Your task to perform on an android device: toggle show notifications on the lock screen Image 0: 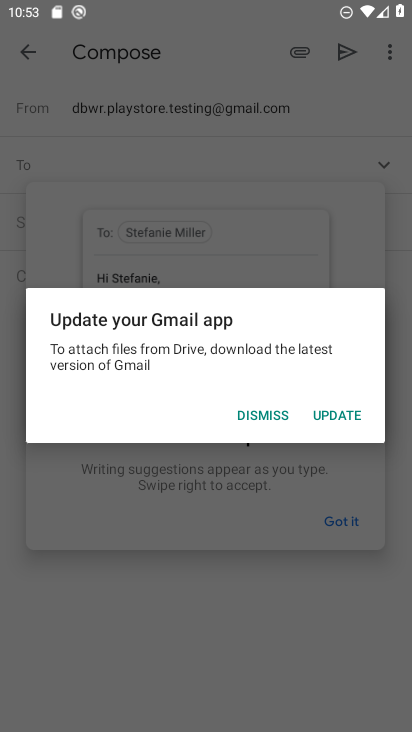
Step 0: press home button
Your task to perform on an android device: toggle show notifications on the lock screen Image 1: 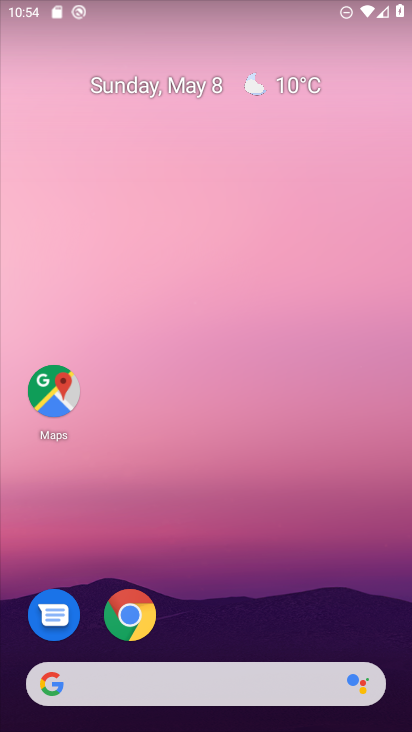
Step 1: drag from (278, 596) to (235, 157)
Your task to perform on an android device: toggle show notifications on the lock screen Image 2: 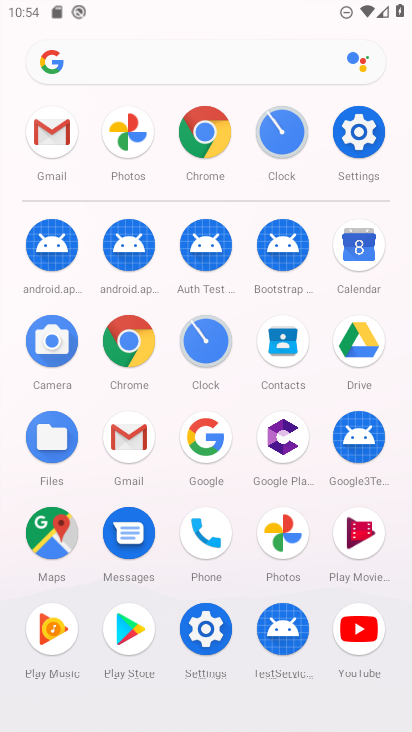
Step 2: click (358, 136)
Your task to perform on an android device: toggle show notifications on the lock screen Image 3: 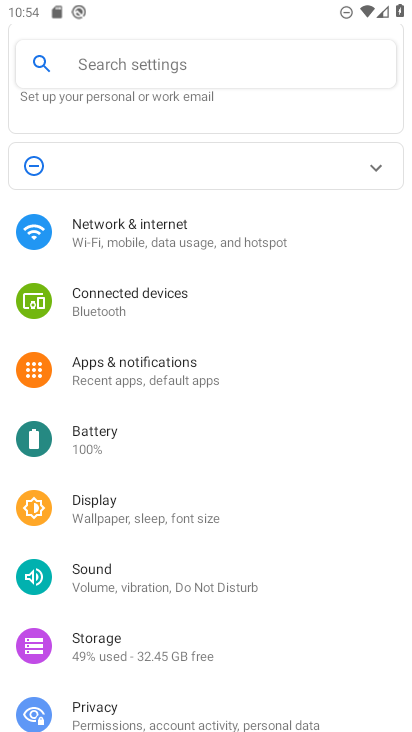
Step 3: click (184, 366)
Your task to perform on an android device: toggle show notifications on the lock screen Image 4: 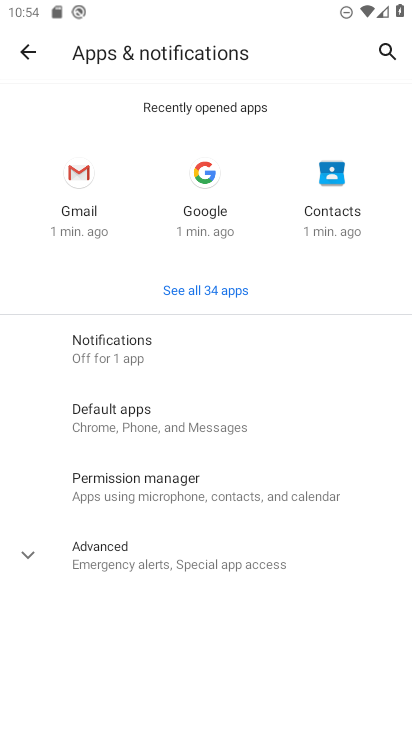
Step 4: click (200, 333)
Your task to perform on an android device: toggle show notifications on the lock screen Image 5: 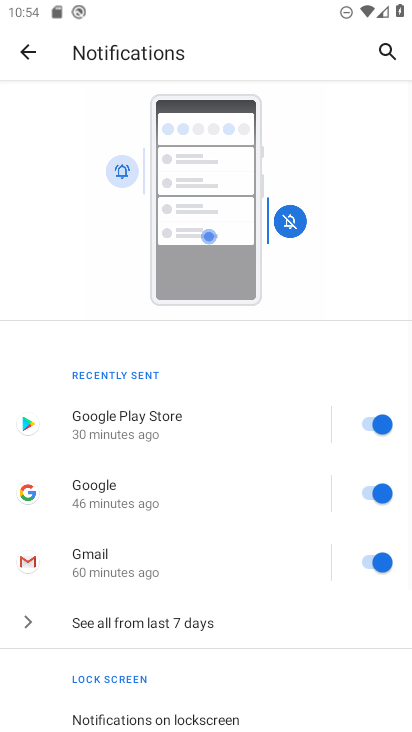
Step 5: drag from (226, 506) to (298, 34)
Your task to perform on an android device: toggle show notifications on the lock screen Image 6: 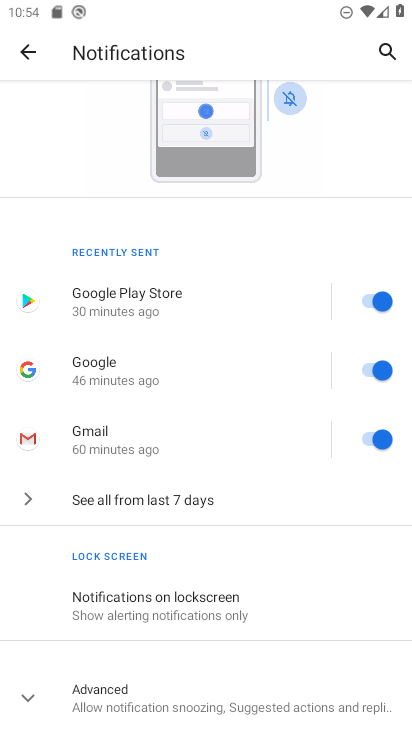
Step 6: click (180, 609)
Your task to perform on an android device: toggle show notifications on the lock screen Image 7: 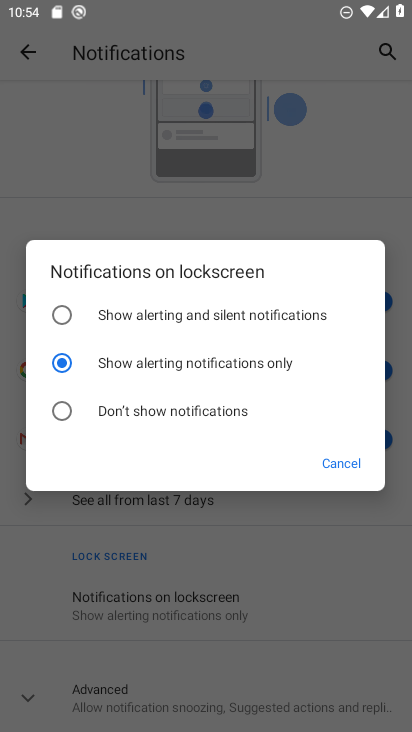
Step 7: click (199, 405)
Your task to perform on an android device: toggle show notifications on the lock screen Image 8: 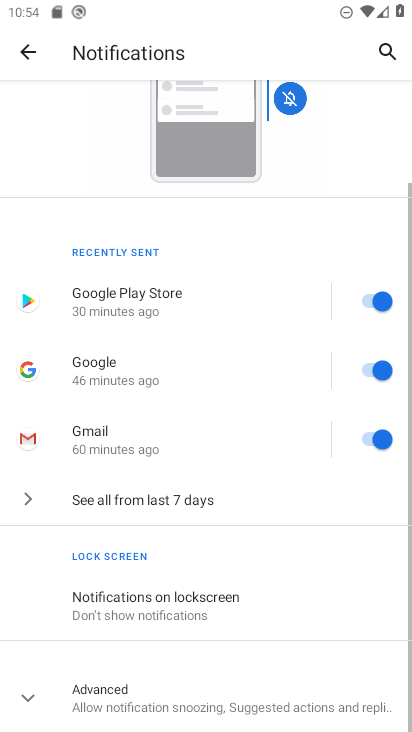
Step 8: task complete